Your task to perform on an android device: open chrome privacy settings Image 0: 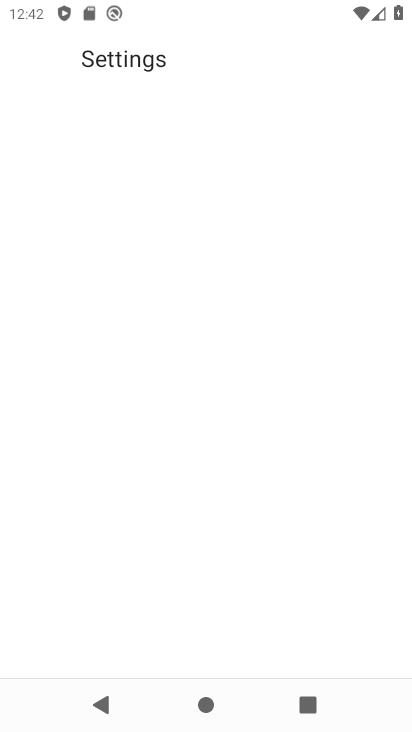
Step 0: drag from (186, 652) to (344, 111)
Your task to perform on an android device: open chrome privacy settings Image 1: 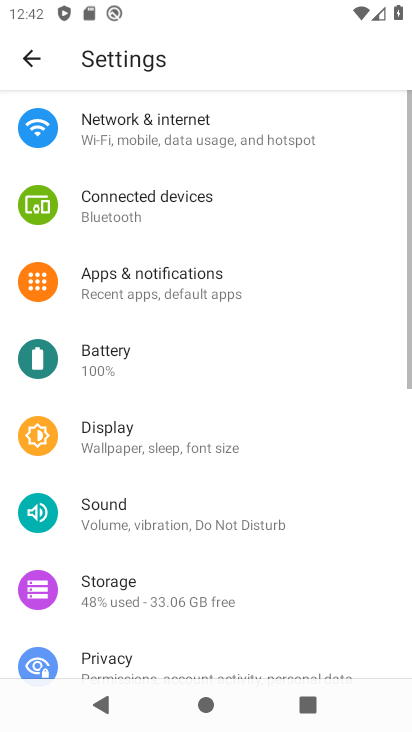
Step 1: press home button
Your task to perform on an android device: open chrome privacy settings Image 2: 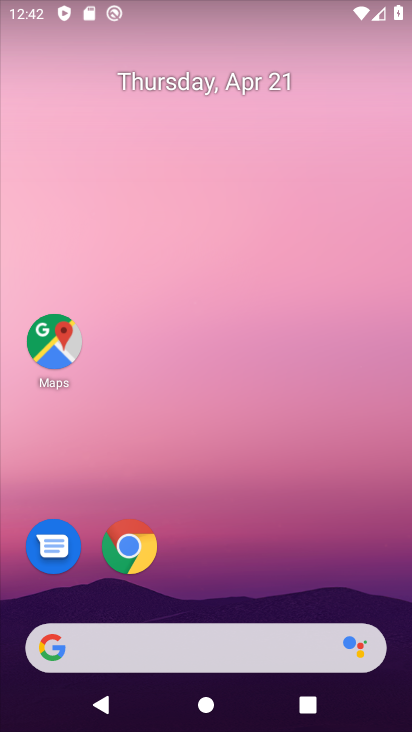
Step 2: drag from (196, 511) to (340, 11)
Your task to perform on an android device: open chrome privacy settings Image 3: 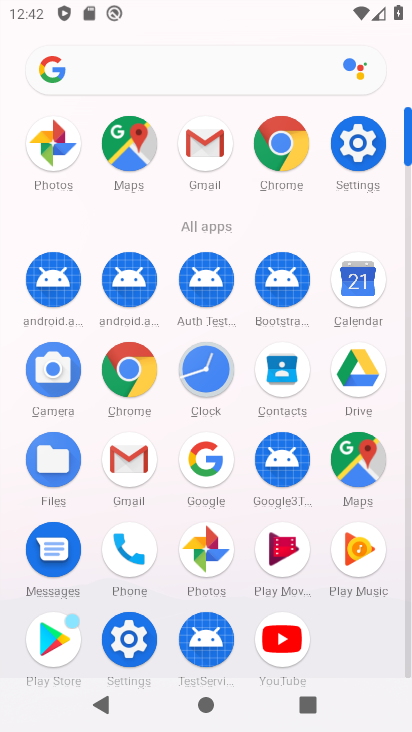
Step 3: click (281, 153)
Your task to perform on an android device: open chrome privacy settings Image 4: 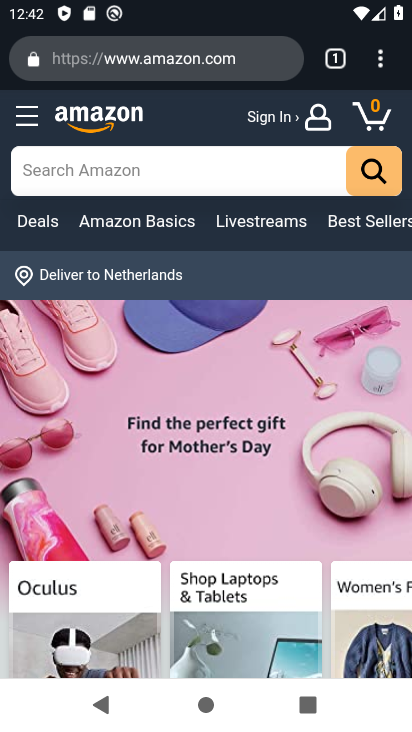
Step 4: click (372, 65)
Your task to perform on an android device: open chrome privacy settings Image 5: 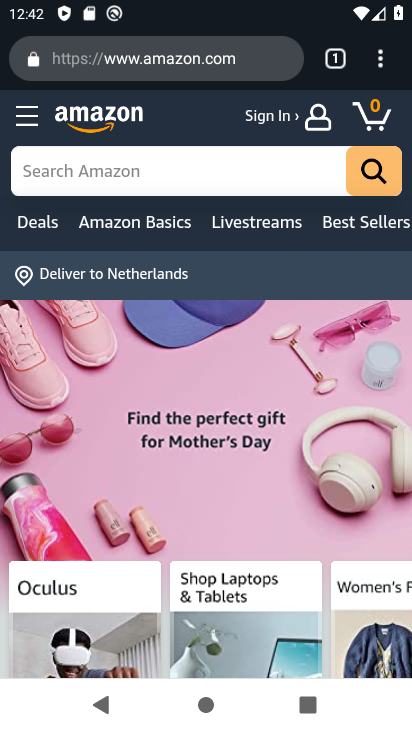
Step 5: click (381, 76)
Your task to perform on an android device: open chrome privacy settings Image 6: 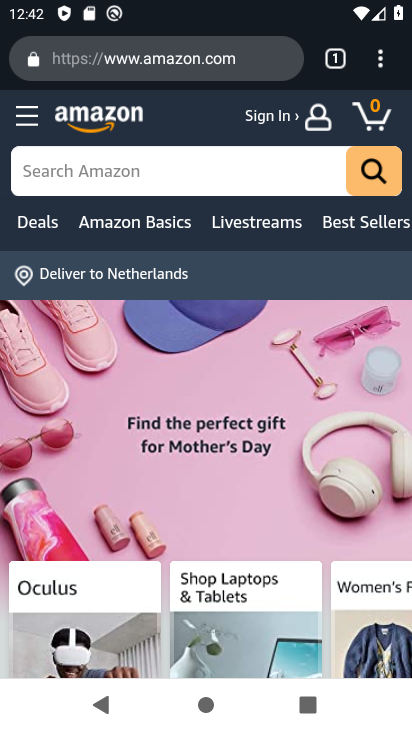
Step 6: click (381, 78)
Your task to perform on an android device: open chrome privacy settings Image 7: 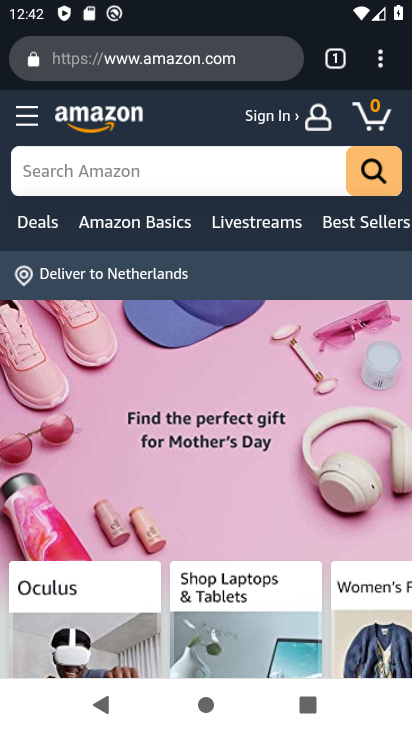
Step 7: click (379, 78)
Your task to perform on an android device: open chrome privacy settings Image 8: 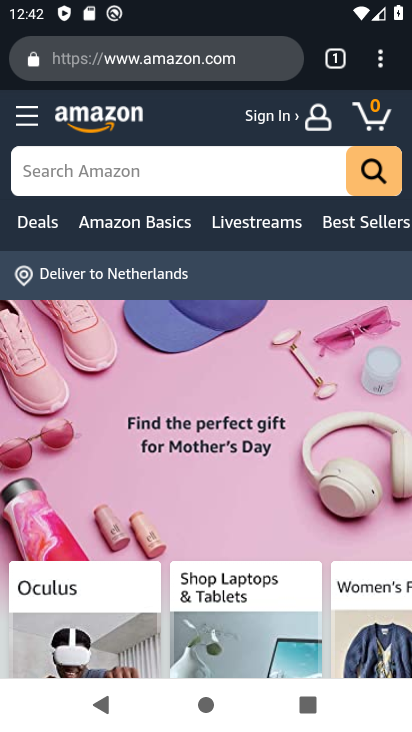
Step 8: click (372, 71)
Your task to perform on an android device: open chrome privacy settings Image 9: 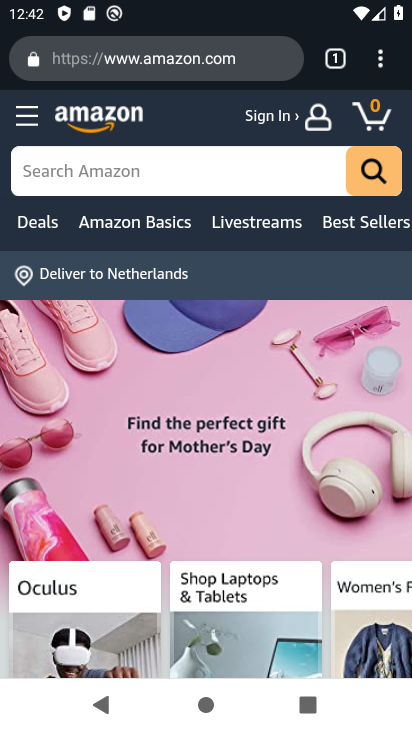
Step 9: click (370, 64)
Your task to perform on an android device: open chrome privacy settings Image 10: 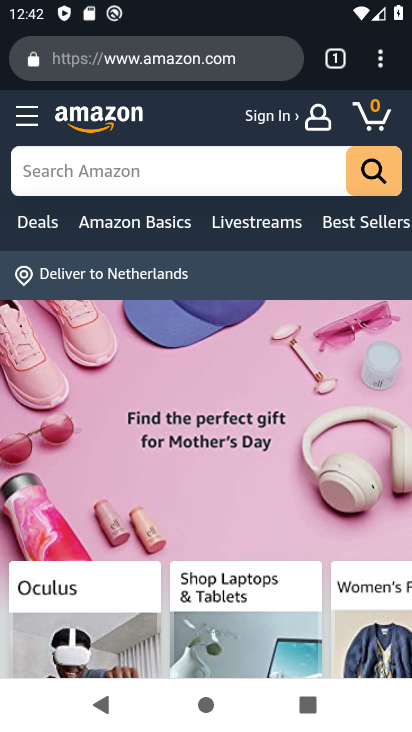
Step 10: click (391, 65)
Your task to perform on an android device: open chrome privacy settings Image 11: 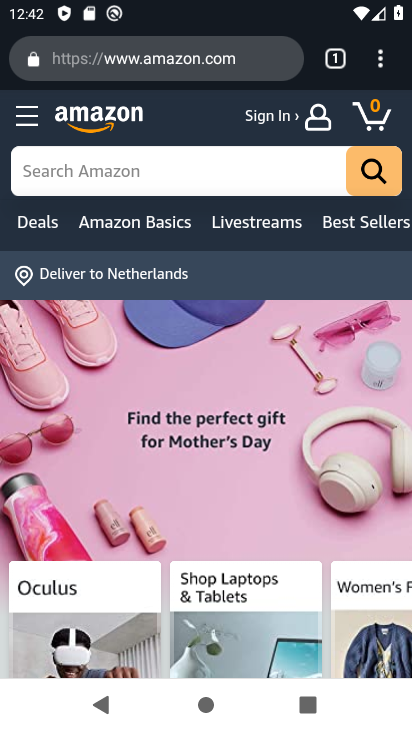
Step 11: click (383, 75)
Your task to perform on an android device: open chrome privacy settings Image 12: 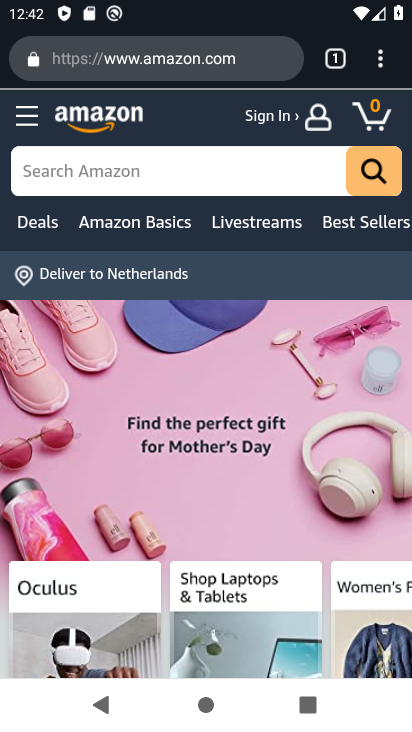
Step 12: click (374, 66)
Your task to perform on an android device: open chrome privacy settings Image 13: 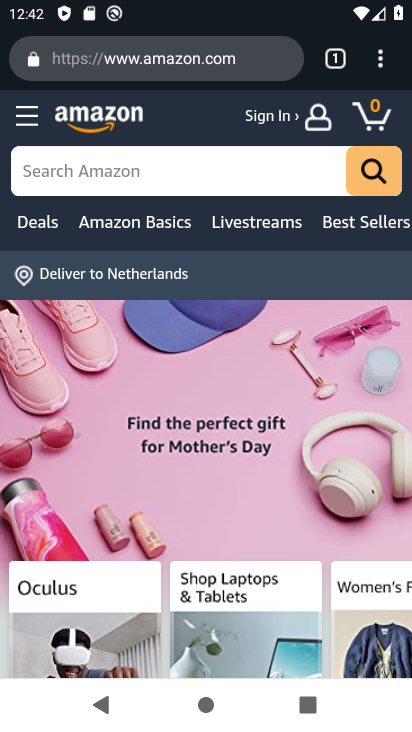
Step 13: click (370, 76)
Your task to perform on an android device: open chrome privacy settings Image 14: 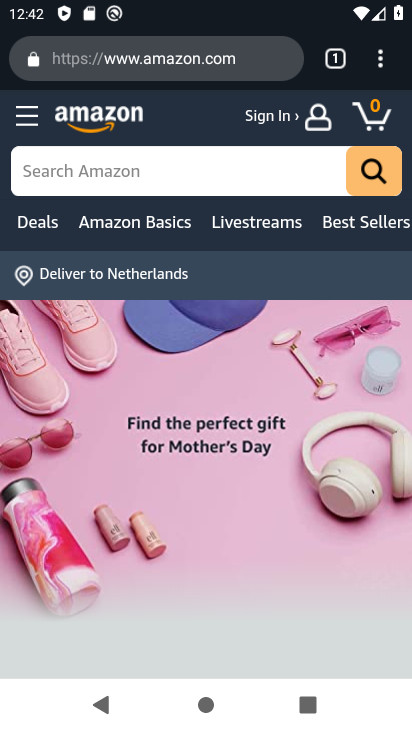
Step 14: click (367, 66)
Your task to perform on an android device: open chrome privacy settings Image 15: 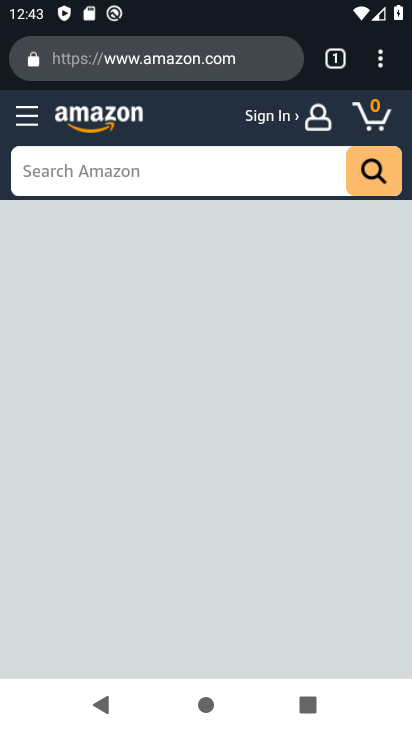
Step 15: click (358, 60)
Your task to perform on an android device: open chrome privacy settings Image 16: 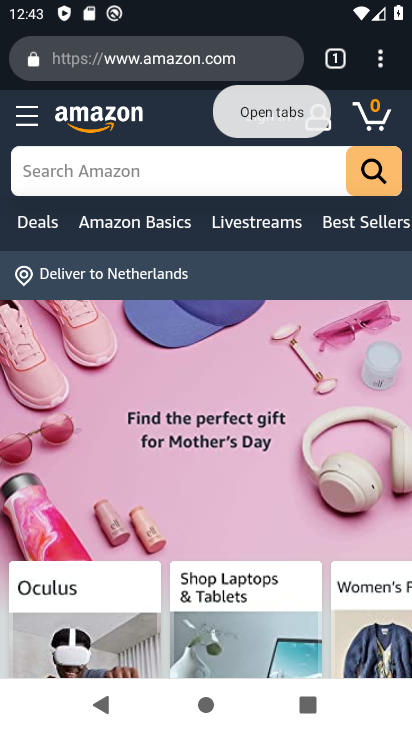
Step 16: click (385, 65)
Your task to perform on an android device: open chrome privacy settings Image 17: 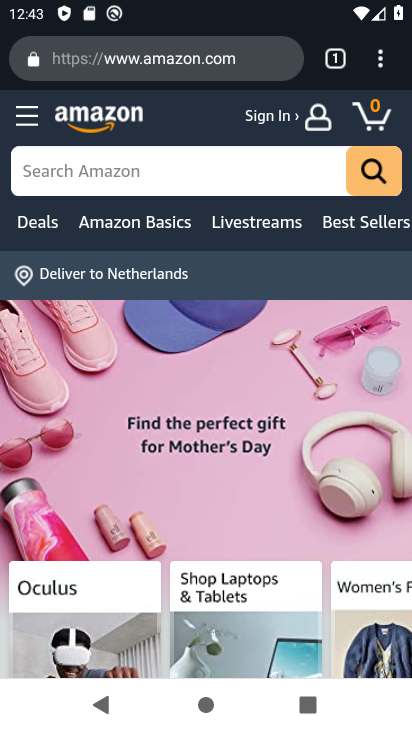
Step 17: click (379, 67)
Your task to perform on an android device: open chrome privacy settings Image 18: 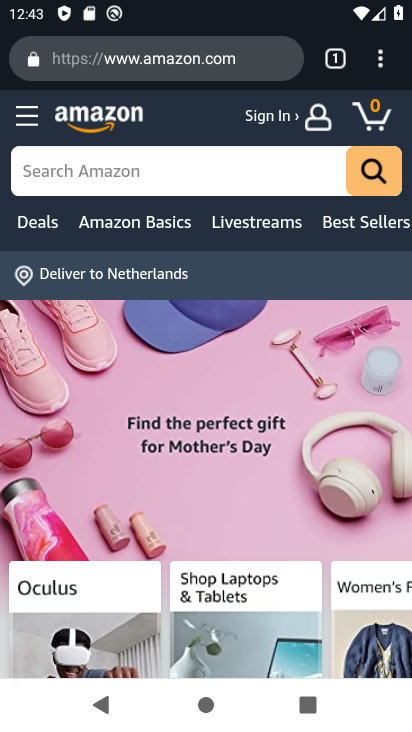
Step 18: click (376, 67)
Your task to perform on an android device: open chrome privacy settings Image 19: 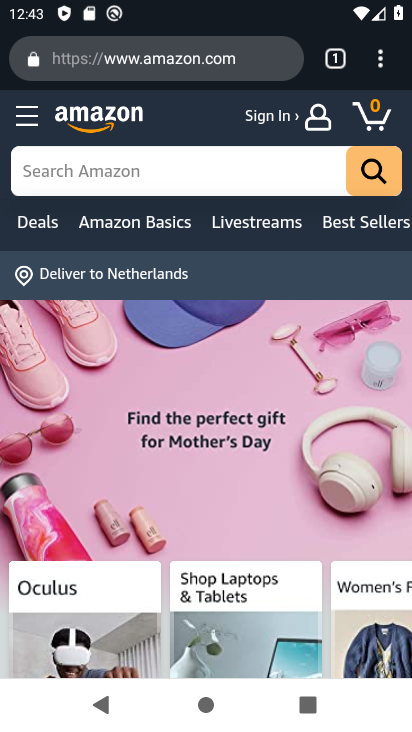
Step 19: drag from (383, 62) to (189, 571)
Your task to perform on an android device: open chrome privacy settings Image 20: 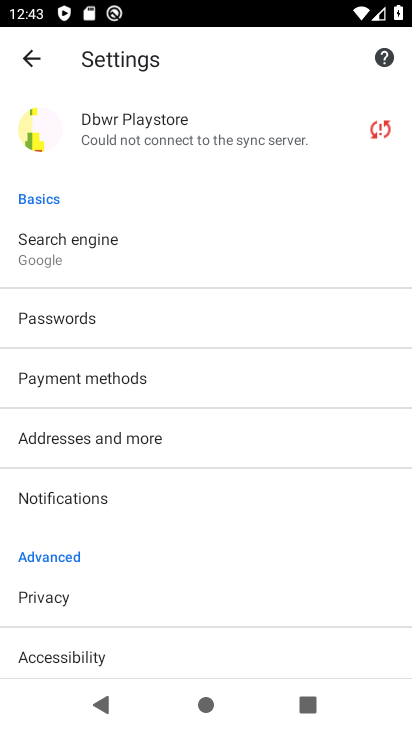
Step 20: click (39, 592)
Your task to perform on an android device: open chrome privacy settings Image 21: 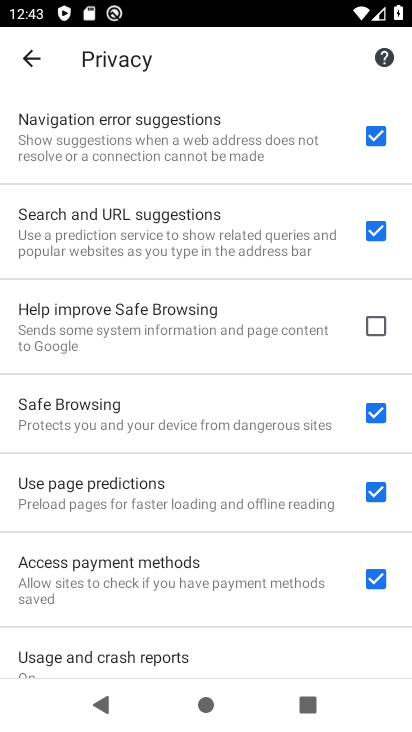
Step 21: task complete